Your task to perform on an android device: Search for Italian restaurants on Maps Image 0: 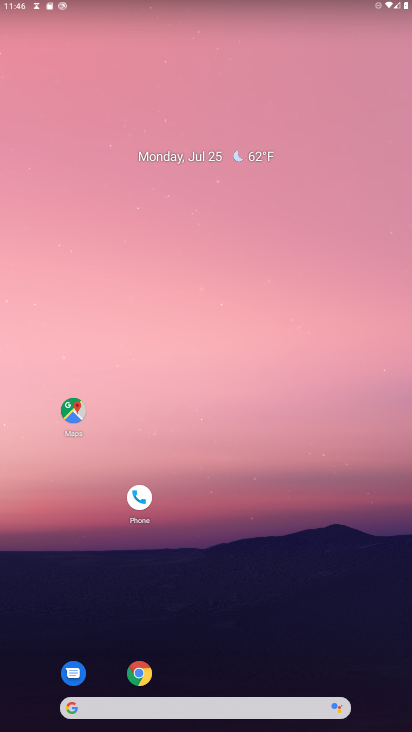
Step 0: click (67, 405)
Your task to perform on an android device: Search for Italian restaurants on Maps Image 1: 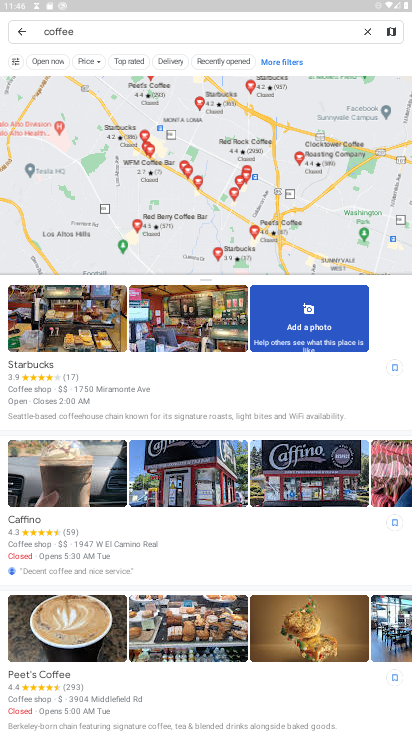
Step 1: click (24, 31)
Your task to perform on an android device: Search for Italian restaurants on Maps Image 2: 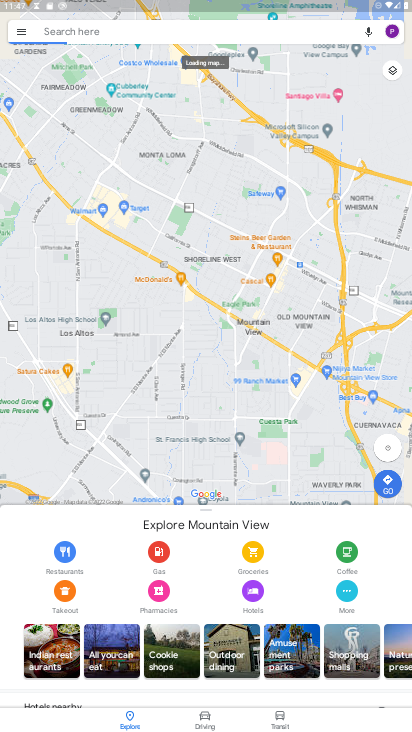
Step 2: click (121, 30)
Your task to perform on an android device: Search for Italian restaurants on Maps Image 3: 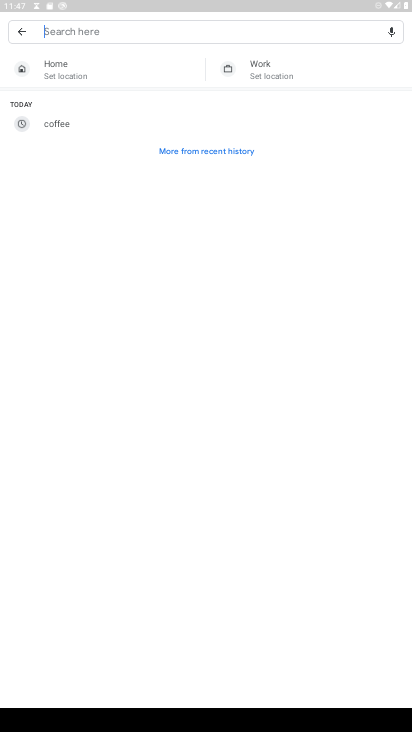
Step 3: type "Italian restaurants "
Your task to perform on an android device: Search for Italian restaurants on Maps Image 4: 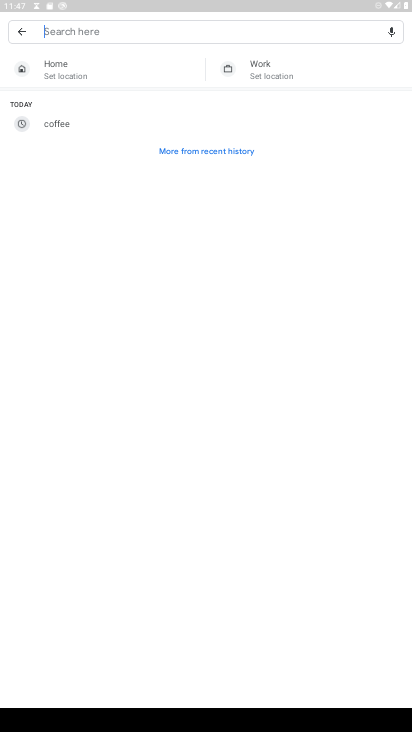
Step 4: click (88, 30)
Your task to perform on an android device: Search for Italian restaurants on Maps Image 5: 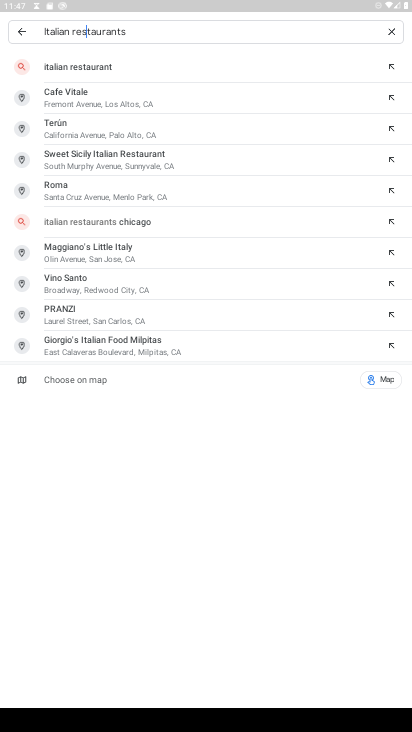
Step 5: click (71, 58)
Your task to perform on an android device: Search for Italian restaurants on Maps Image 6: 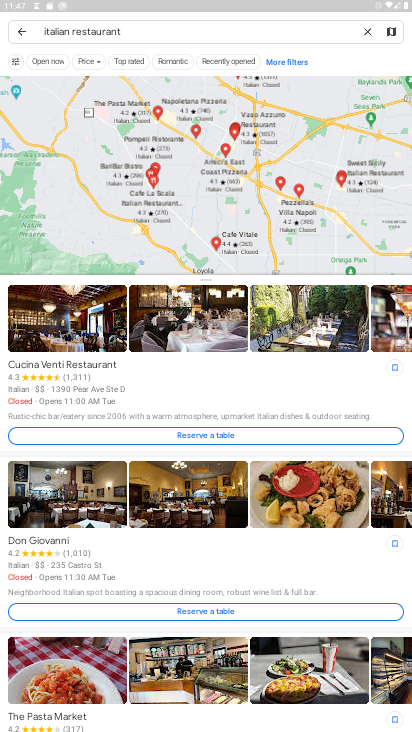
Step 6: task complete